Your task to perform on an android device: set default search engine in the chrome app Image 0: 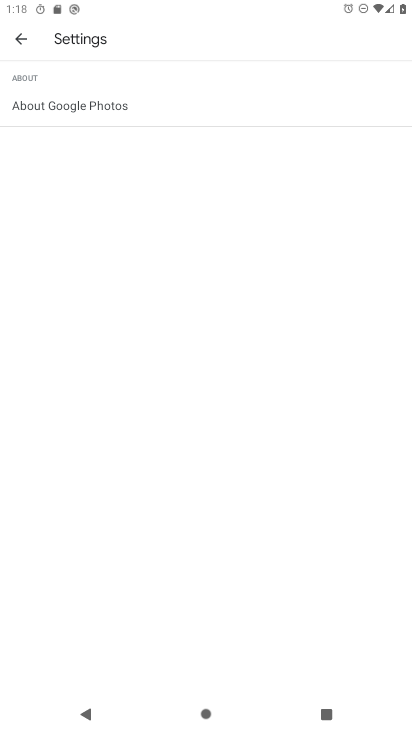
Step 0: press home button
Your task to perform on an android device: set default search engine in the chrome app Image 1: 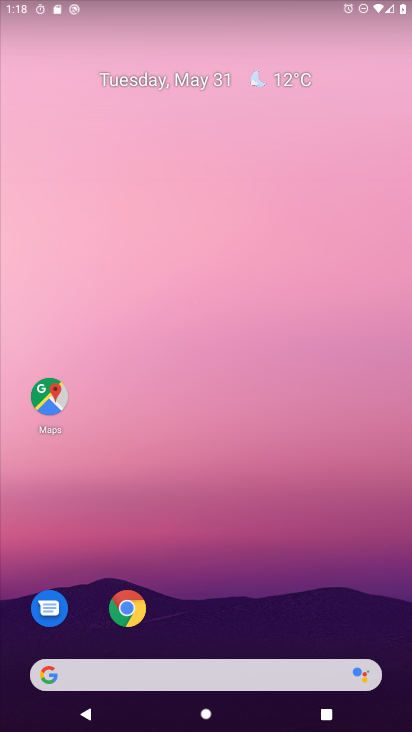
Step 1: click (125, 610)
Your task to perform on an android device: set default search engine in the chrome app Image 2: 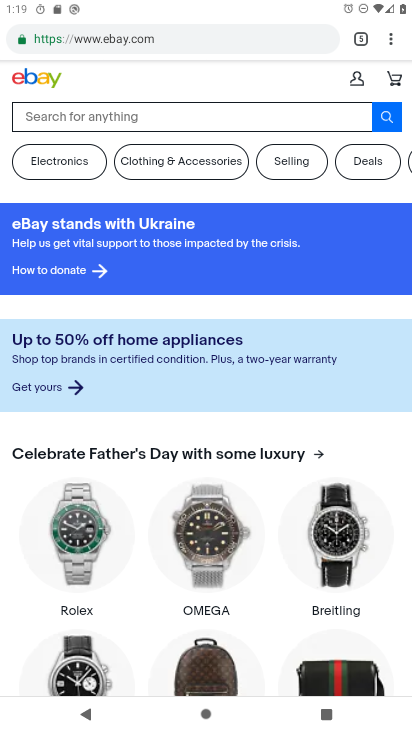
Step 2: click (393, 38)
Your task to perform on an android device: set default search engine in the chrome app Image 3: 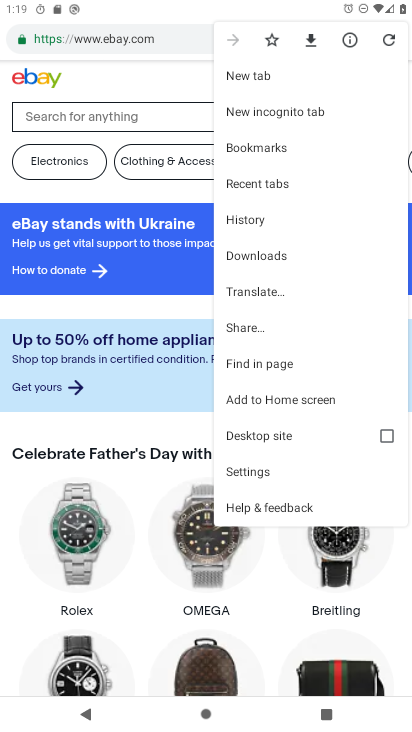
Step 3: click (248, 475)
Your task to perform on an android device: set default search engine in the chrome app Image 4: 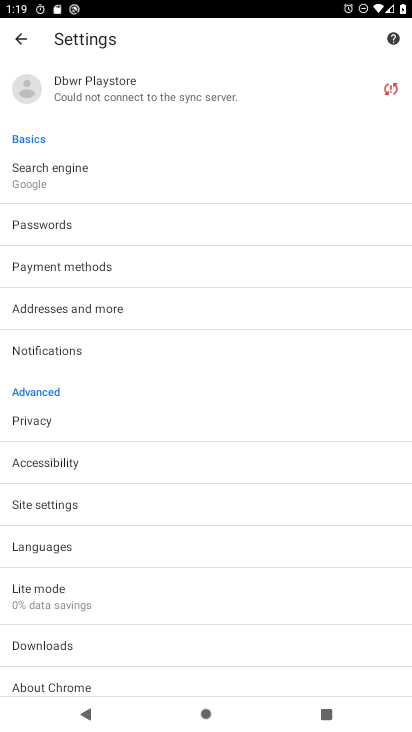
Step 4: click (43, 169)
Your task to perform on an android device: set default search engine in the chrome app Image 5: 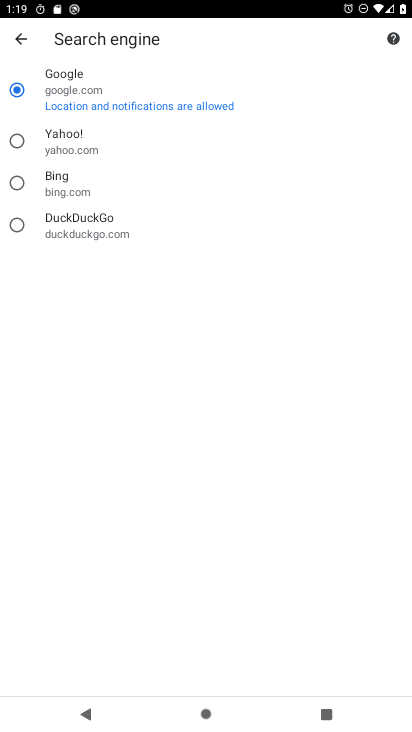
Step 5: click (18, 142)
Your task to perform on an android device: set default search engine in the chrome app Image 6: 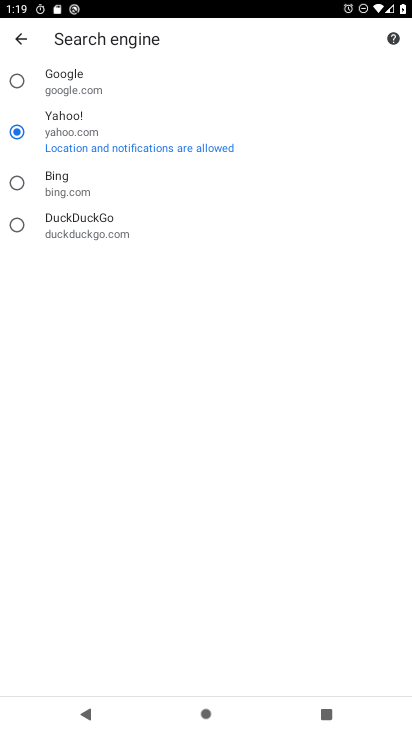
Step 6: task complete